Your task to perform on an android device: Turn off the flashlight Image 0: 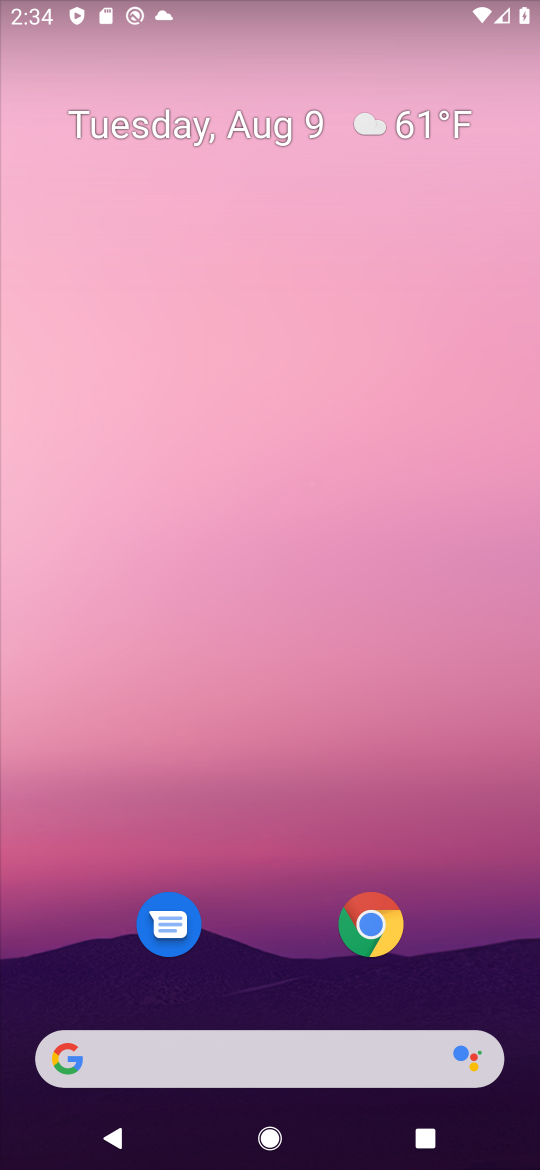
Step 0: drag from (294, 820) to (374, 0)
Your task to perform on an android device: Turn off the flashlight Image 1: 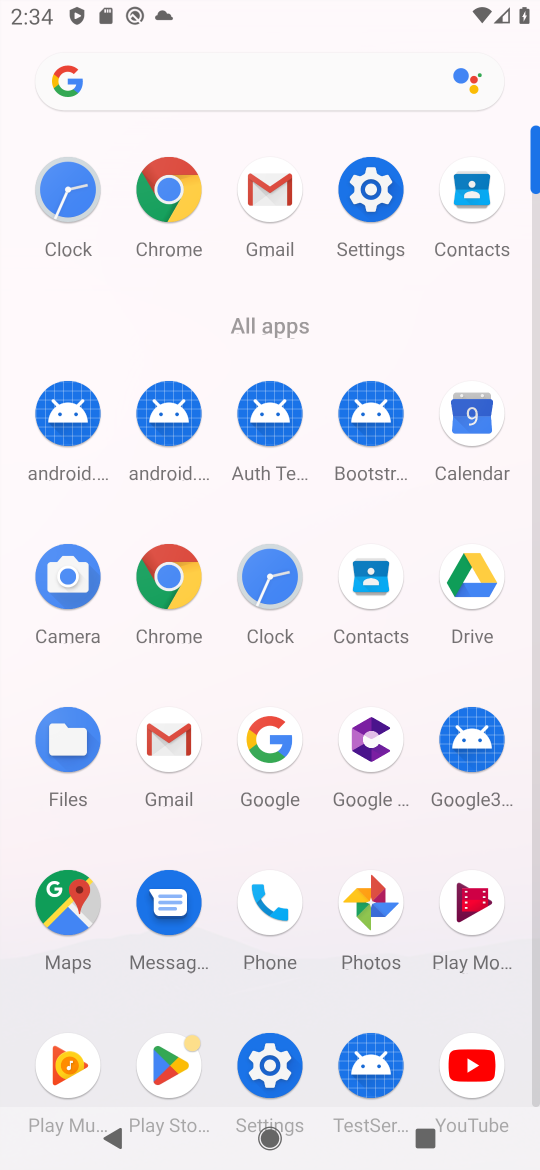
Step 1: click (369, 185)
Your task to perform on an android device: Turn off the flashlight Image 2: 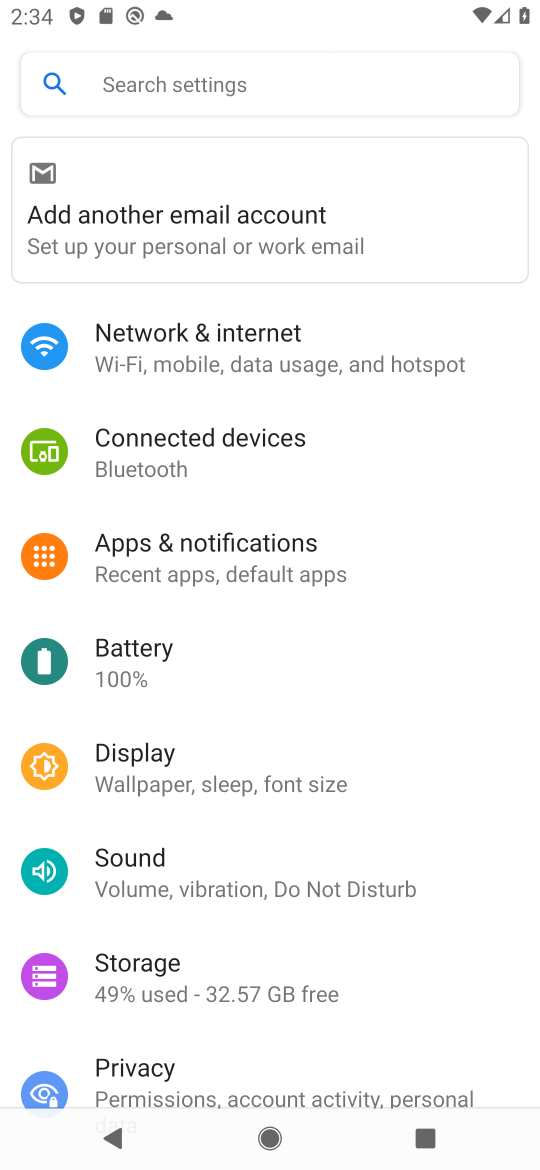
Step 2: click (334, 82)
Your task to perform on an android device: Turn off the flashlight Image 3: 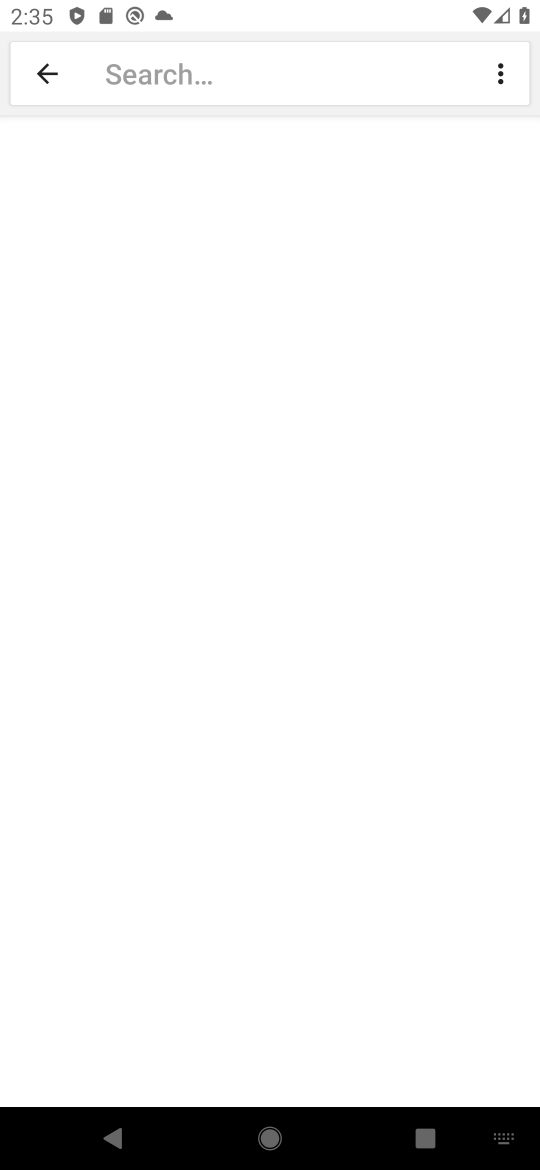
Step 3: type "flashlight"
Your task to perform on an android device: Turn off the flashlight Image 4: 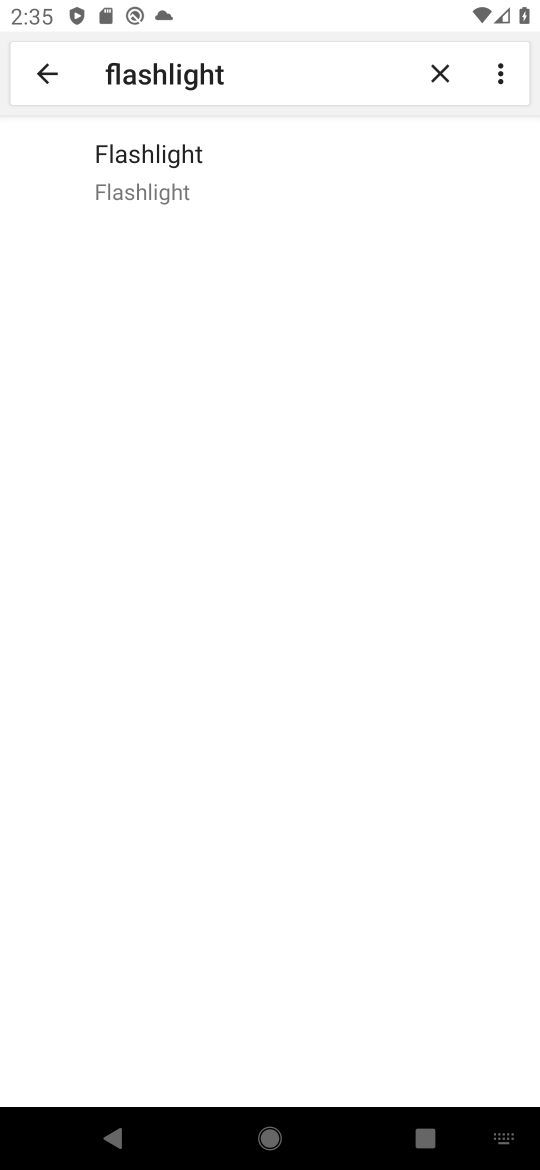
Step 4: click (185, 166)
Your task to perform on an android device: Turn off the flashlight Image 5: 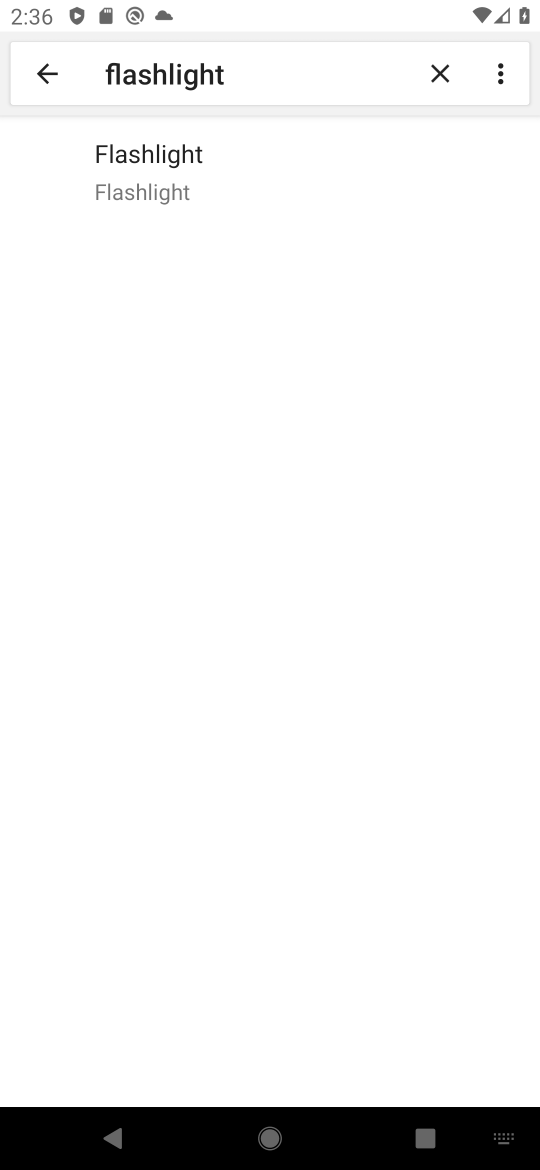
Step 5: task complete